Your task to perform on an android device: add a contact in the contacts app Image 0: 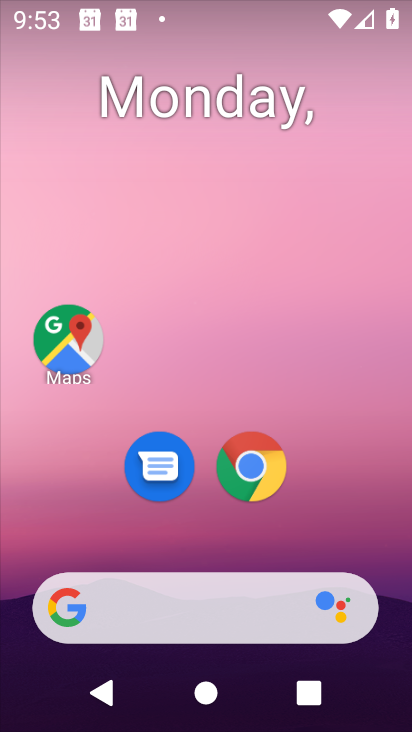
Step 0: drag from (264, 359) to (140, 52)
Your task to perform on an android device: add a contact in the contacts app Image 1: 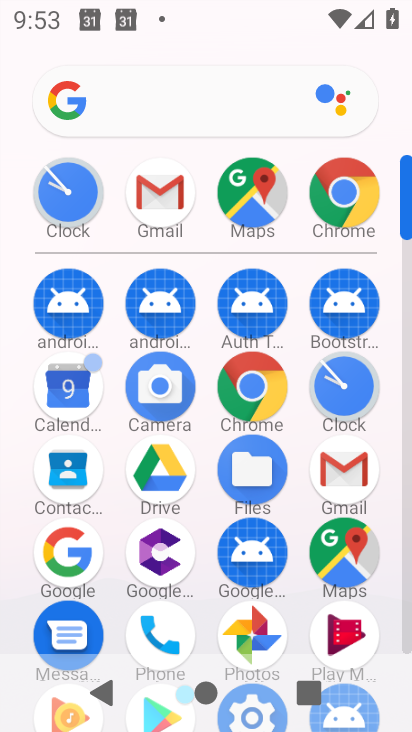
Step 1: click (67, 468)
Your task to perform on an android device: add a contact in the contacts app Image 2: 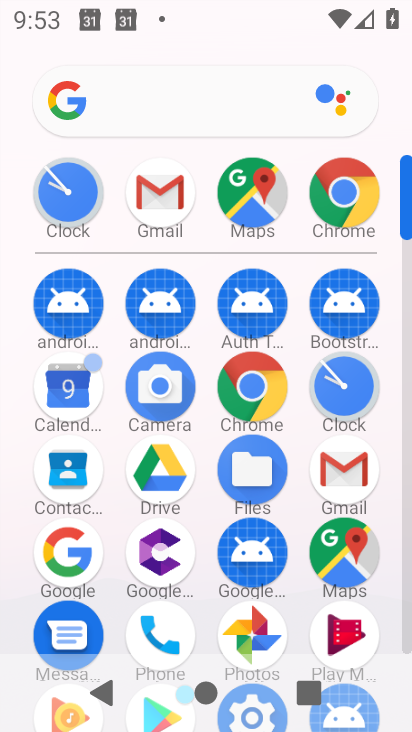
Step 2: click (67, 468)
Your task to perform on an android device: add a contact in the contacts app Image 3: 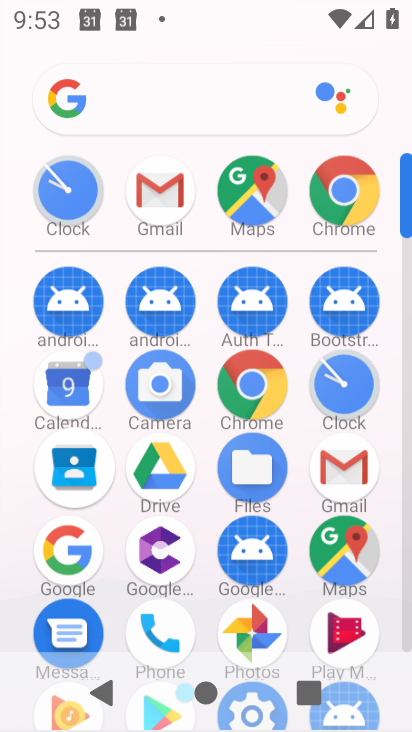
Step 3: click (67, 468)
Your task to perform on an android device: add a contact in the contacts app Image 4: 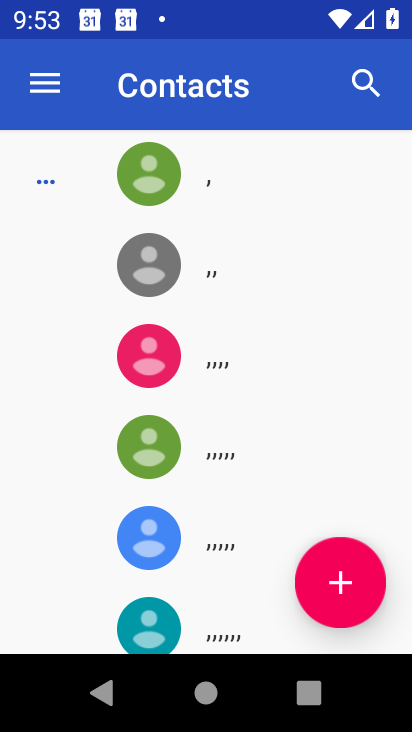
Step 4: click (337, 578)
Your task to perform on an android device: add a contact in the contacts app Image 5: 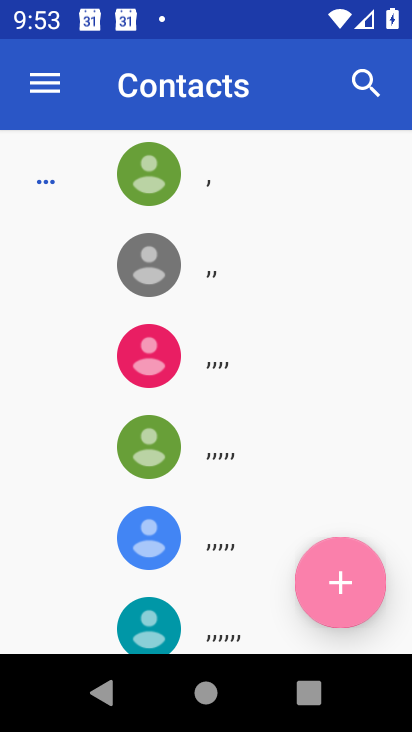
Step 5: click (337, 579)
Your task to perform on an android device: add a contact in the contacts app Image 6: 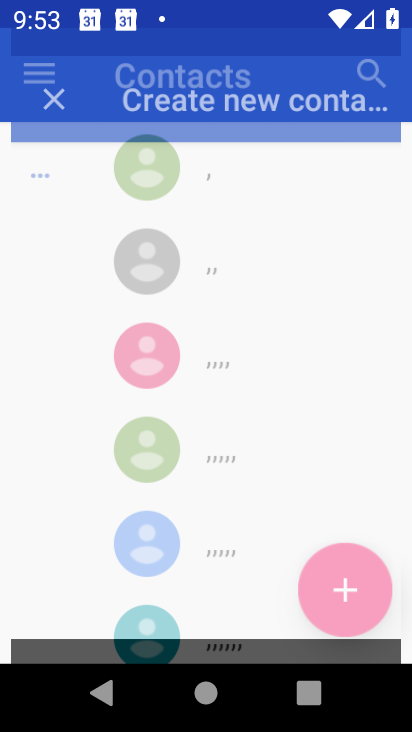
Step 6: click (337, 579)
Your task to perform on an android device: add a contact in the contacts app Image 7: 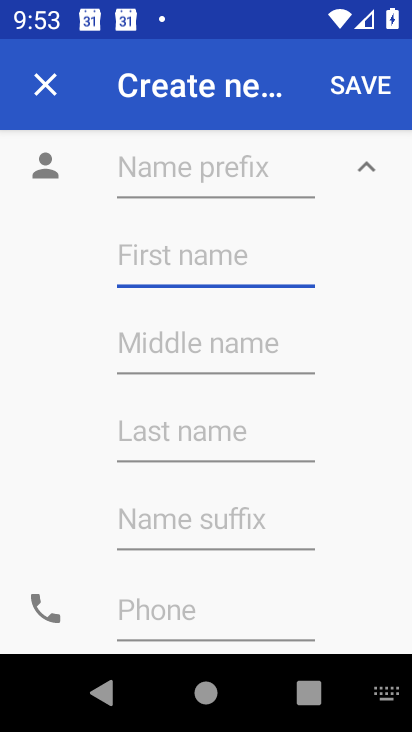
Step 7: type "rajni"
Your task to perform on an android device: add a contact in the contacts app Image 8: 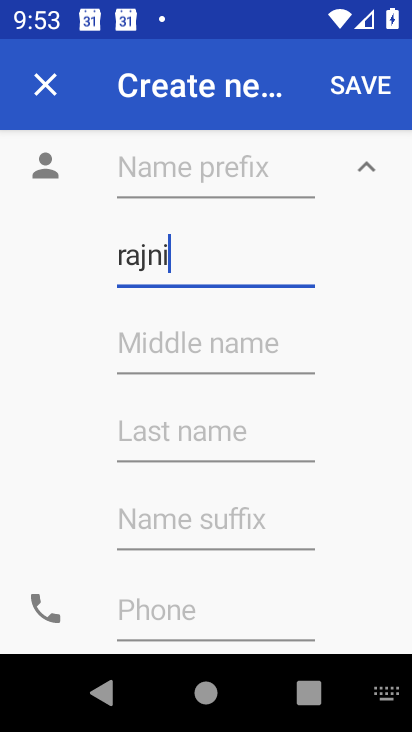
Step 8: click (176, 425)
Your task to perform on an android device: add a contact in the contacts app Image 9: 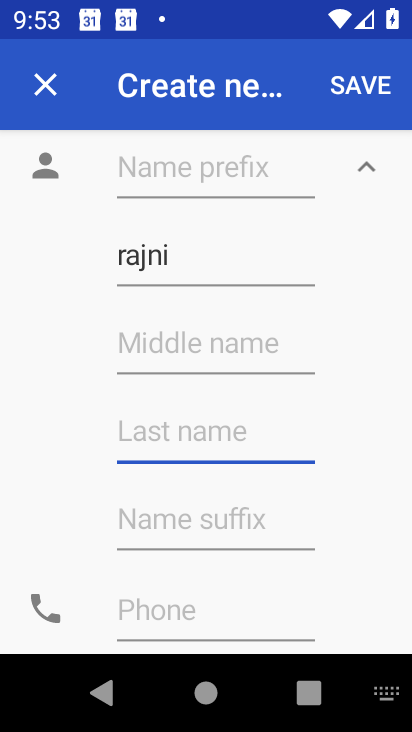
Step 9: click (142, 620)
Your task to perform on an android device: add a contact in the contacts app Image 10: 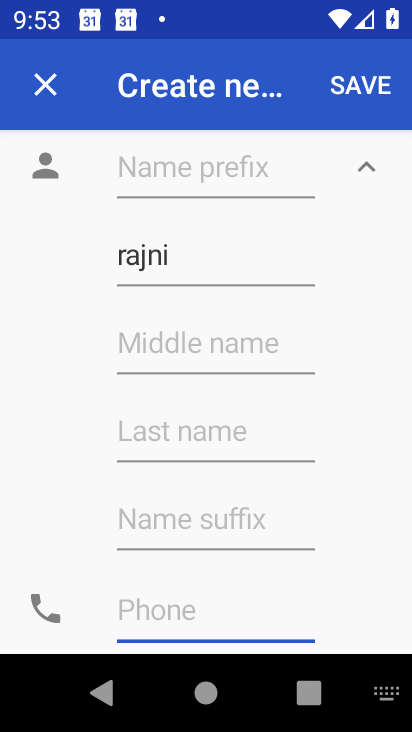
Step 10: click (150, 603)
Your task to perform on an android device: add a contact in the contacts app Image 11: 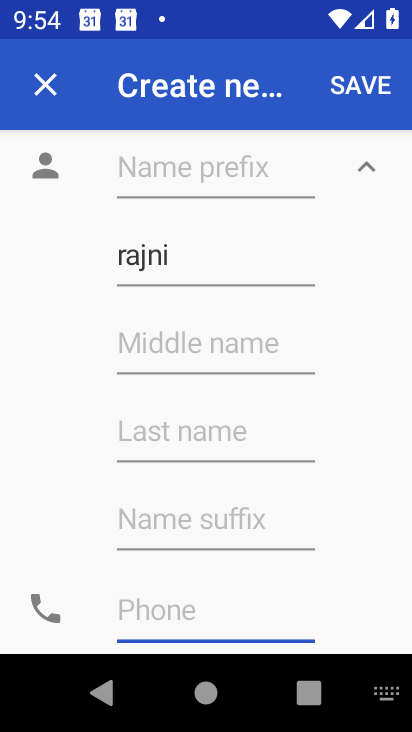
Step 11: type "9898756765"
Your task to perform on an android device: add a contact in the contacts app Image 12: 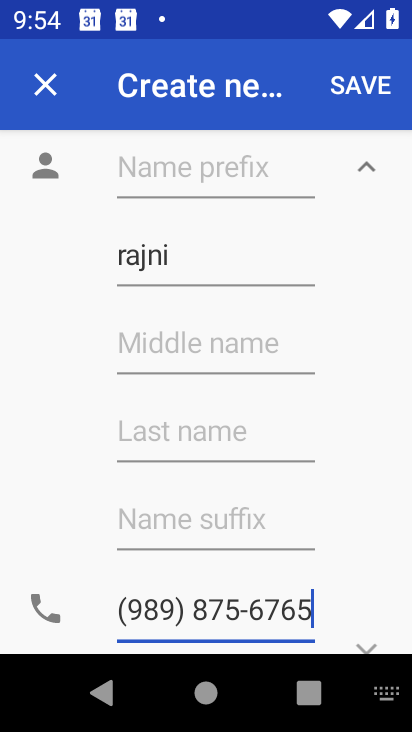
Step 12: task complete